Your task to perform on an android device: Go to notification settings Image 0: 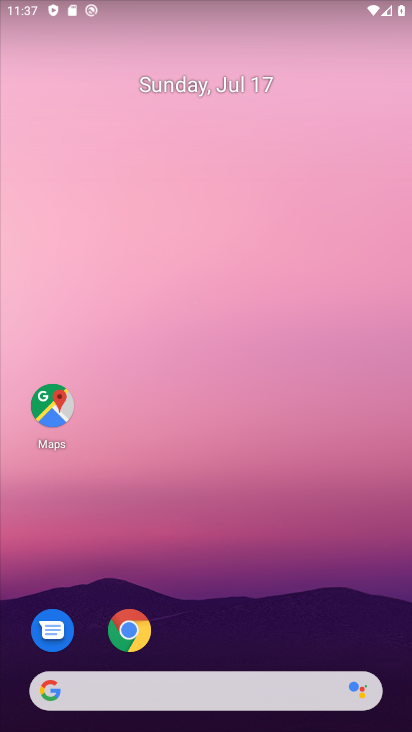
Step 0: drag from (250, 654) to (240, 275)
Your task to perform on an android device: Go to notification settings Image 1: 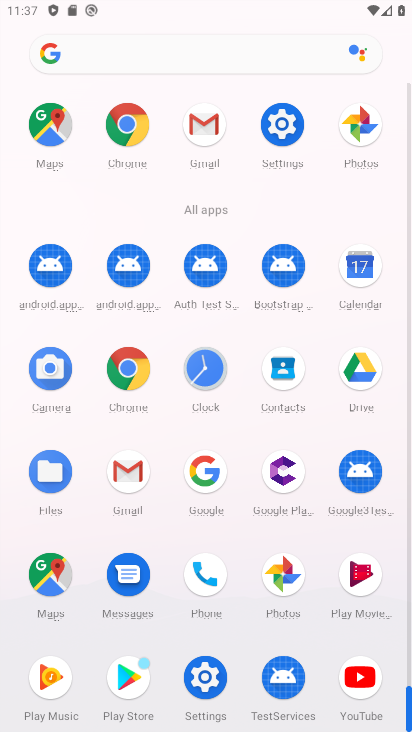
Step 1: click (283, 118)
Your task to perform on an android device: Go to notification settings Image 2: 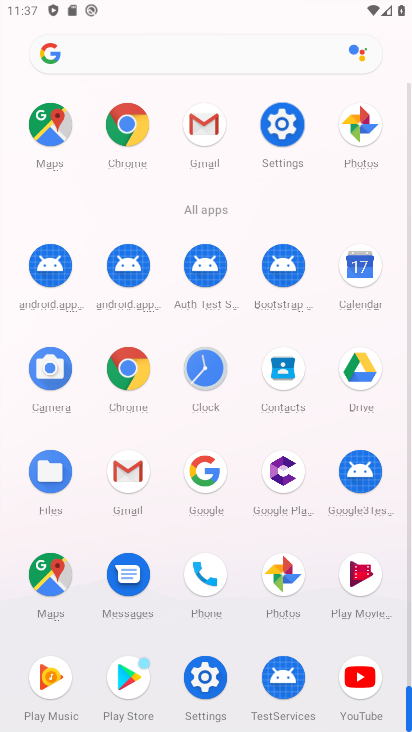
Step 2: click (284, 118)
Your task to perform on an android device: Go to notification settings Image 3: 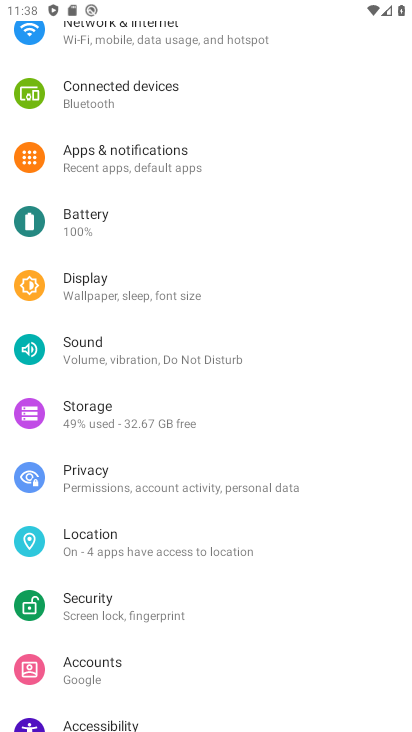
Step 3: click (137, 151)
Your task to perform on an android device: Go to notification settings Image 4: 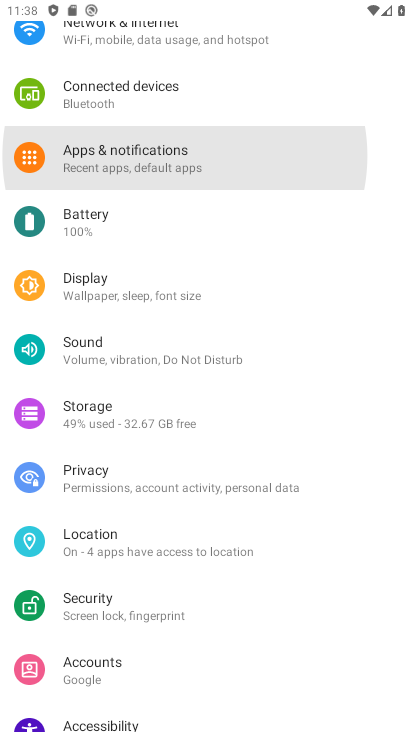
Step 4: click (137, 151)
Your task to perform on an android device: Go to notification settings Image 5: 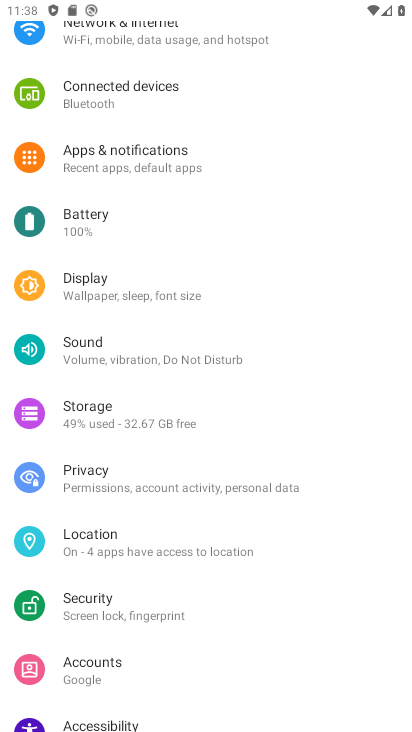
Step 5: click (139, 151)
Your task to perform on an android device: Go to notification settings Image 6: 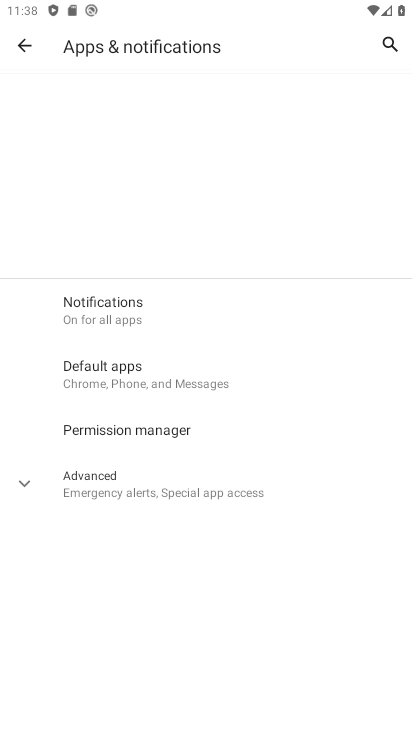
Step 6: click (127, 159)
Your task to perform on an android device: Go to notification settings Image 7: 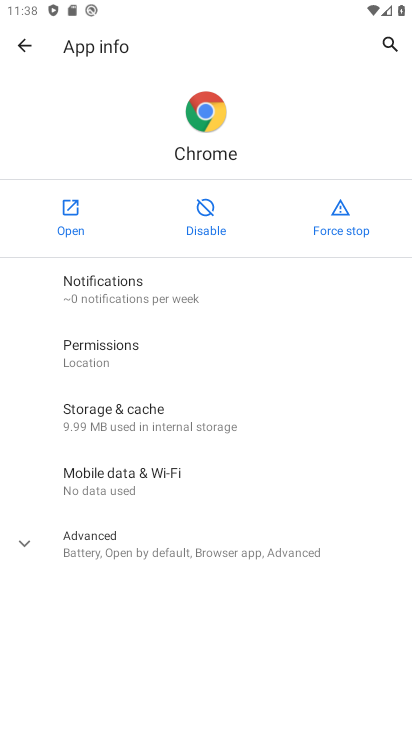
Step 7: click (116, 303)
Your task to perform on an android device: Go to notification settings Image 8: 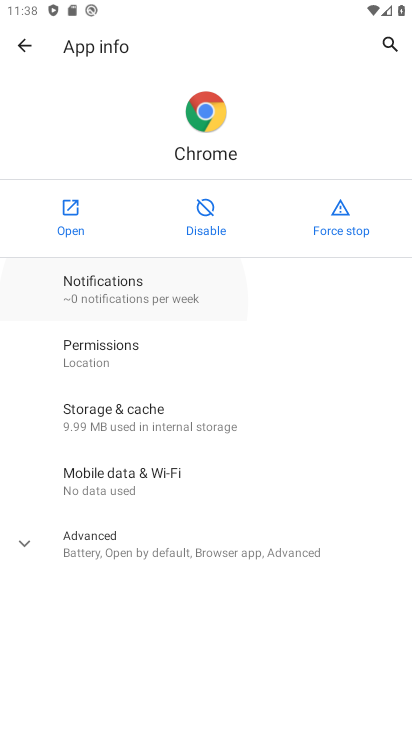
Step 8: click (124, 293)
Your task to perform on an android device: Go to notification settings Image 9: 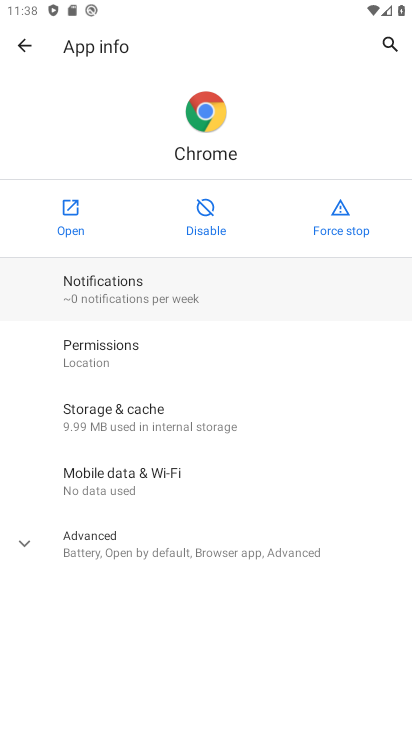
Step 9: click (134, 275)
Your task to perform on an android device: Go to notification settings Image 10: 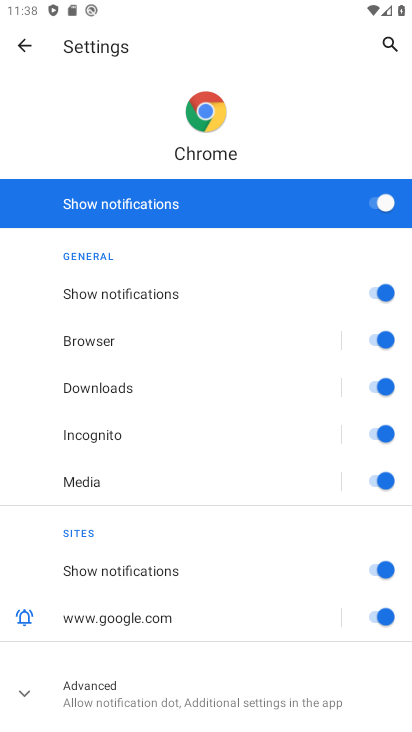
Step 10: task complete